Your task to perform on an android device: Add usb-c to usb-b to the cart on target Image 0: 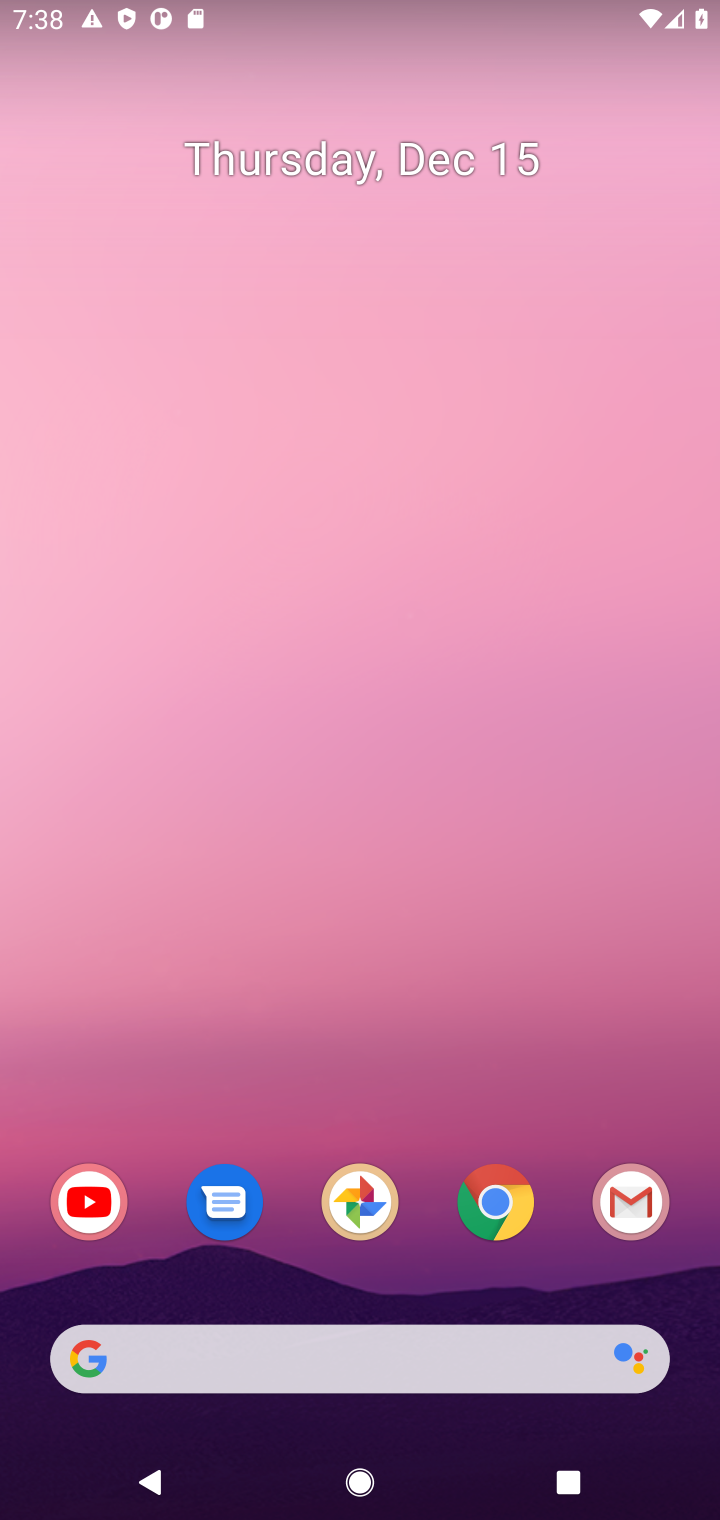
Step 0: click (506, 1211)
Your task to perform on an android device: Add usb-c to usb-b to the cart on target Image 1: 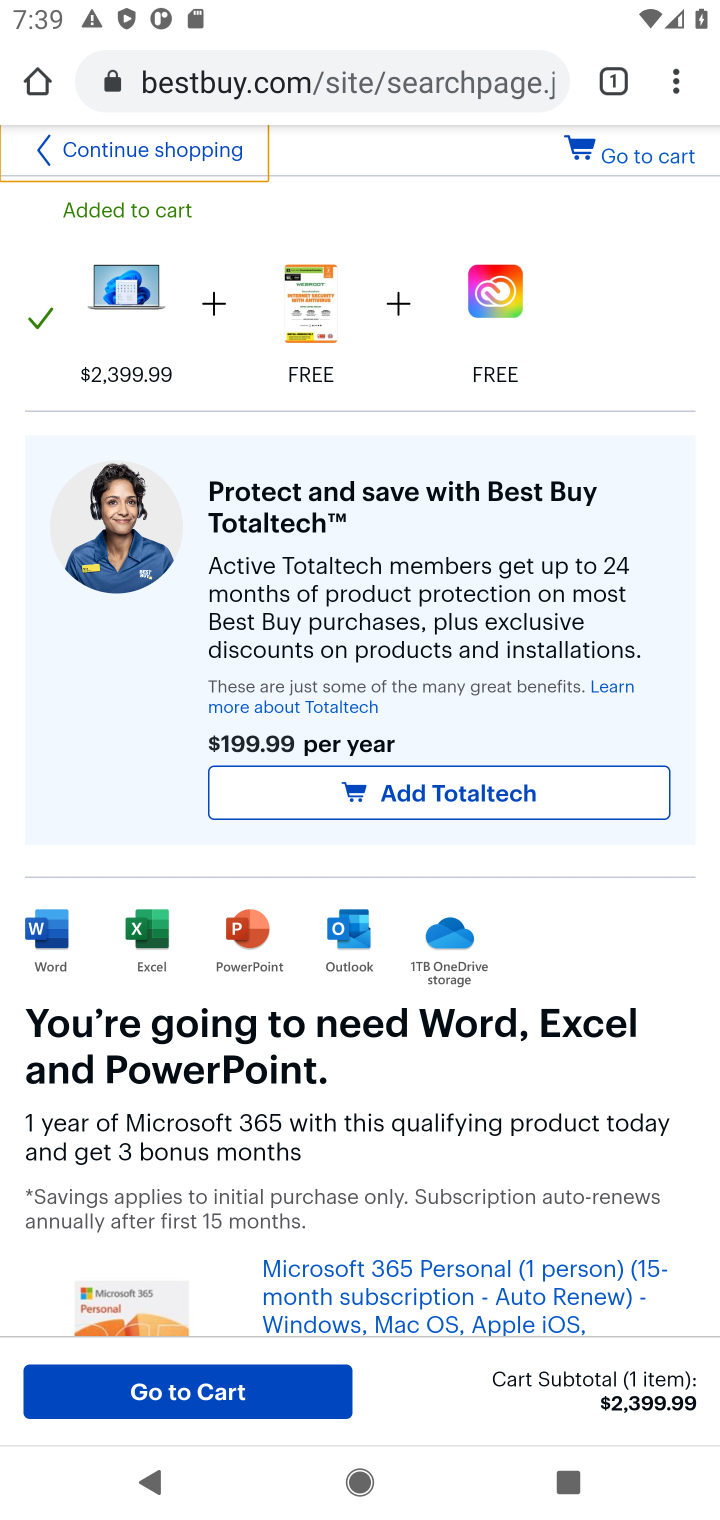
Step 1: click (253, 83)
Your task to perform on an android device: Add usb-c to usb-b to the cart on target Image 2: 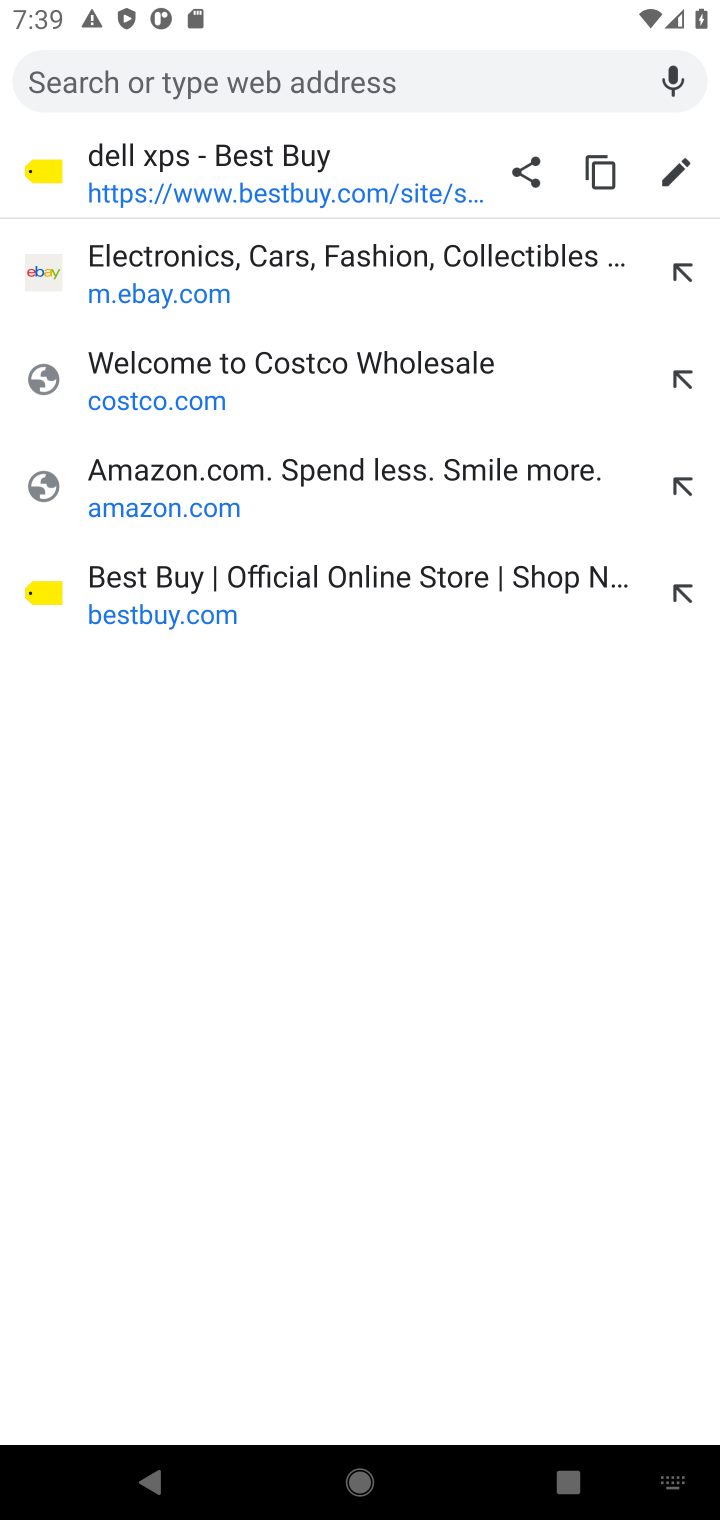
Step 2: type "target.com"
Your task to perform on an android device: Add usb-c to usb-b to the cart on target Image 3: 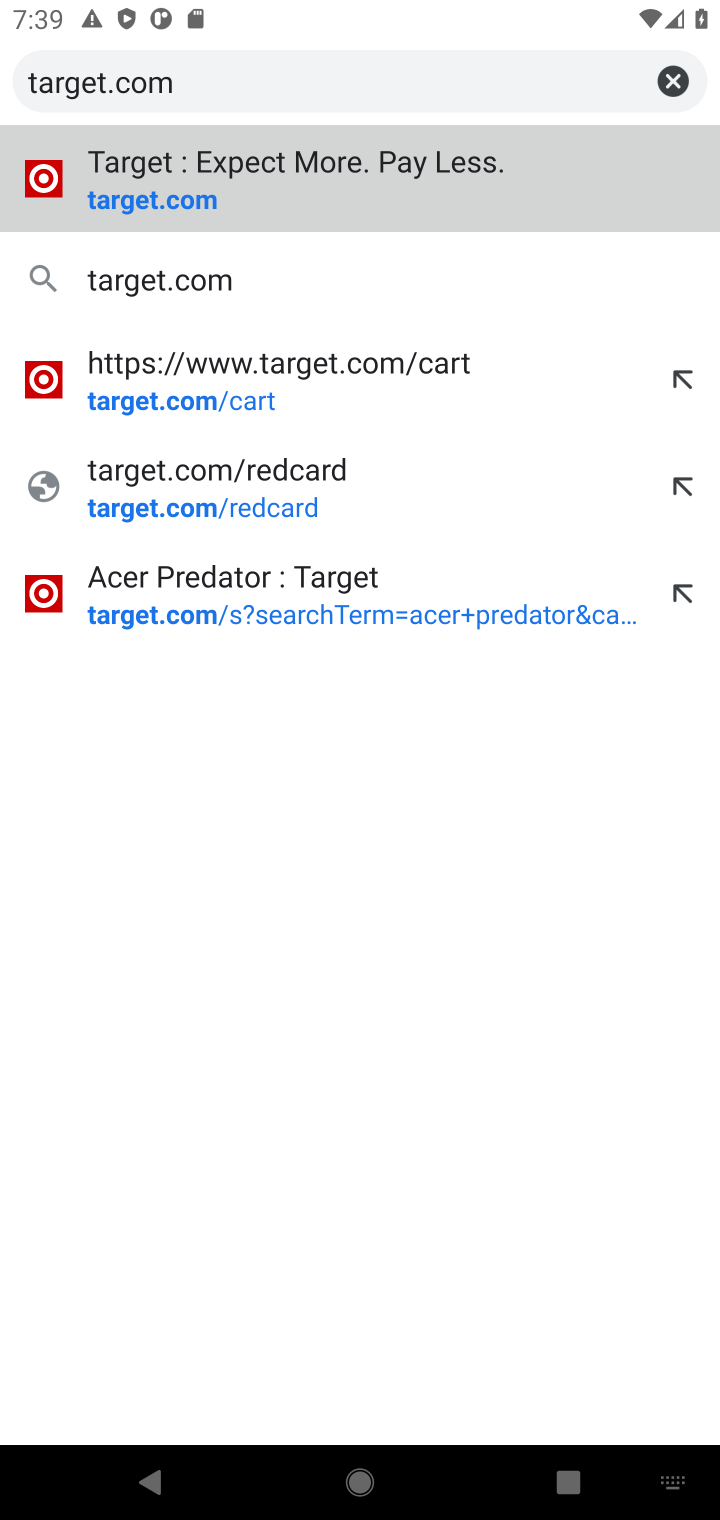
Step 3: click (168, 189)
Your task to perform on an android device: Add usb-c to usb-b to the cart on target Image 4: 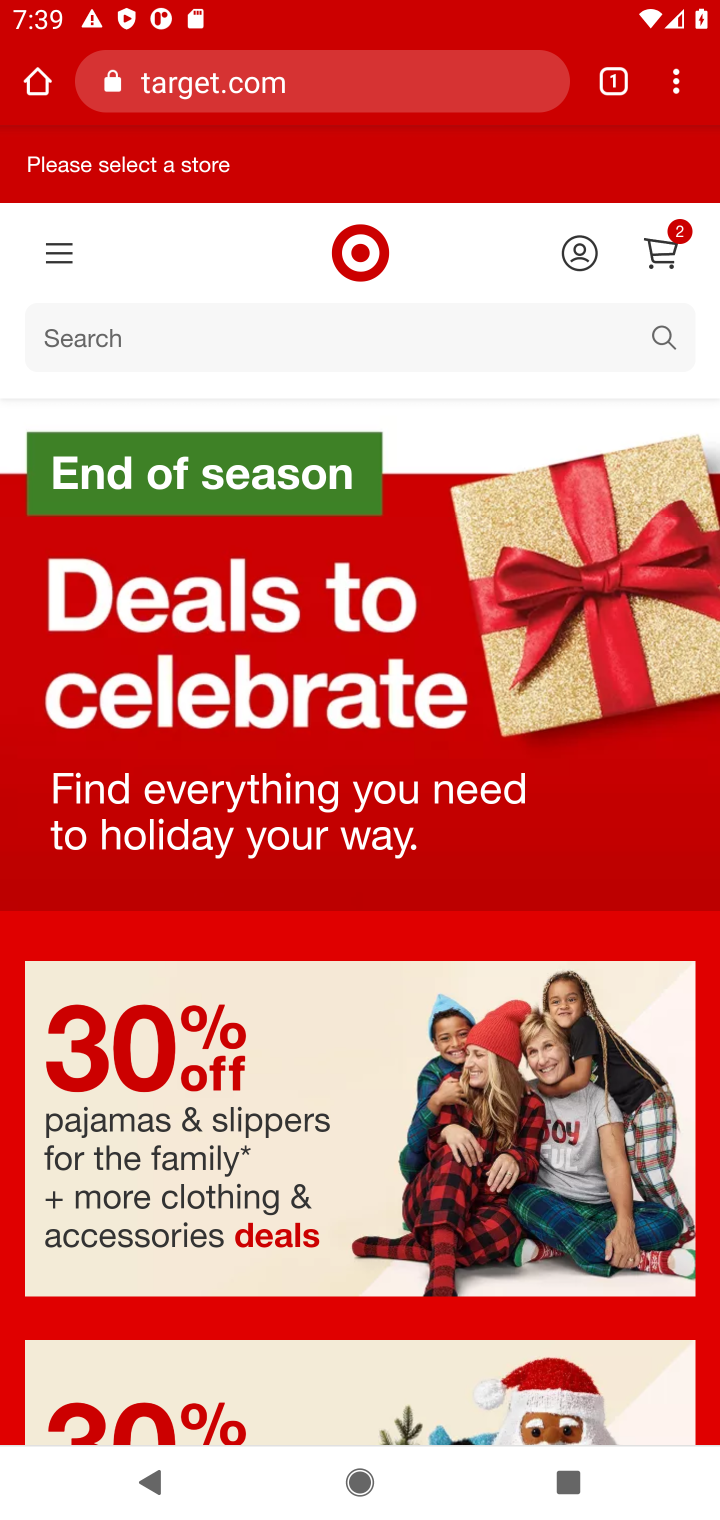
Step 4: click (48, 324)
Your task to perform on an android device: Add usb-c to usb-b to the cart on target Image 5: 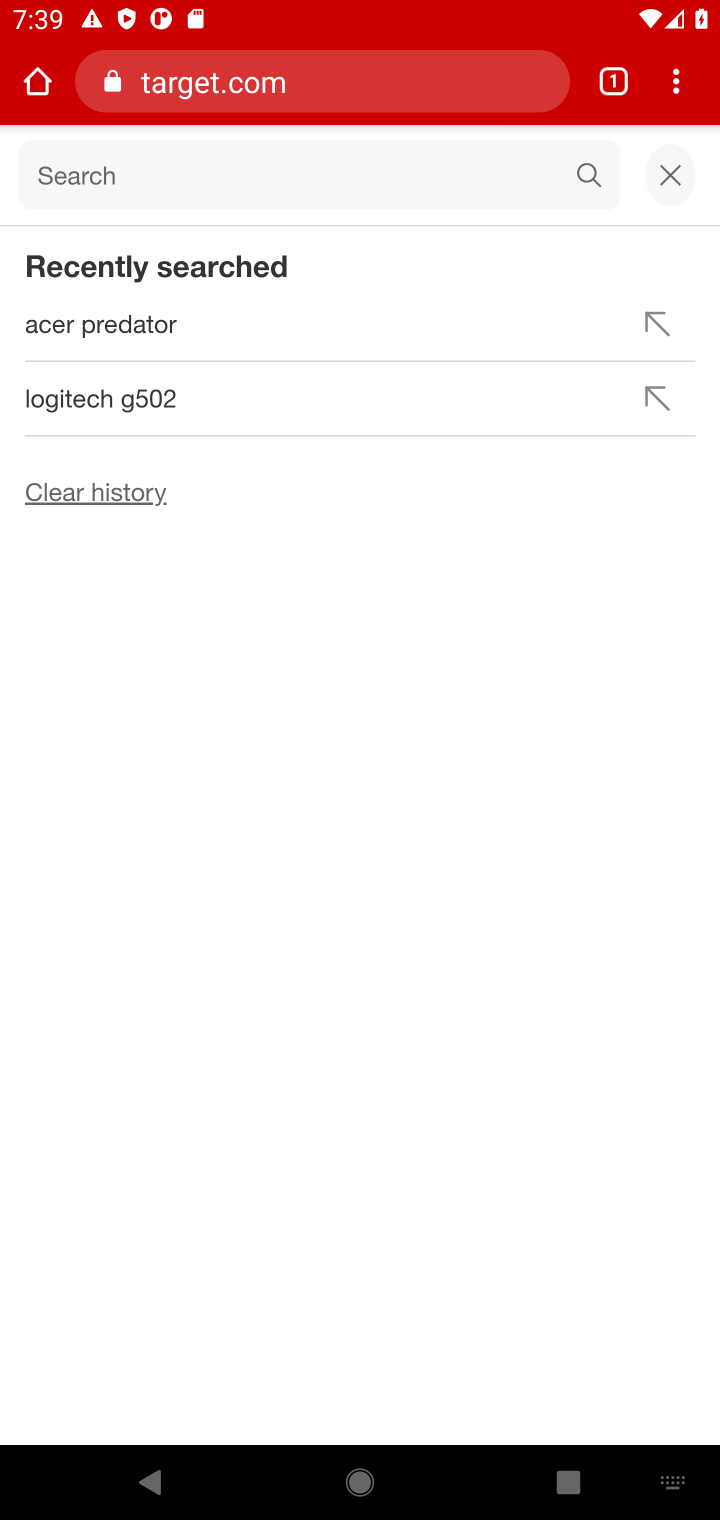
Step 5: type "usb-c to usb-b"
Your task to perform on an android device: Add usb-c to usb-b to the cart on target Image 6: 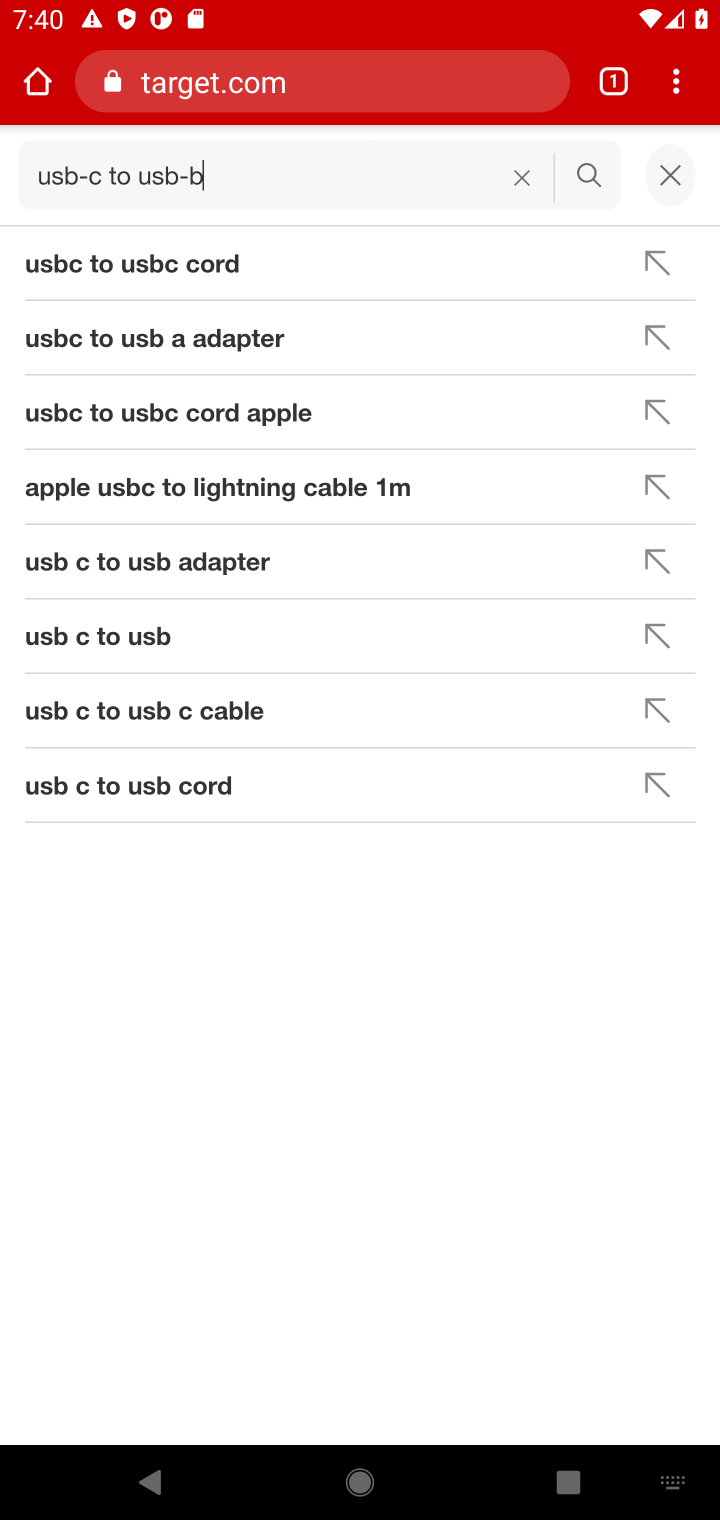
Step 6: click (598, 175)
Your task to perform on an android device: Add usb-c to usb-b to the cart on target Image 7: 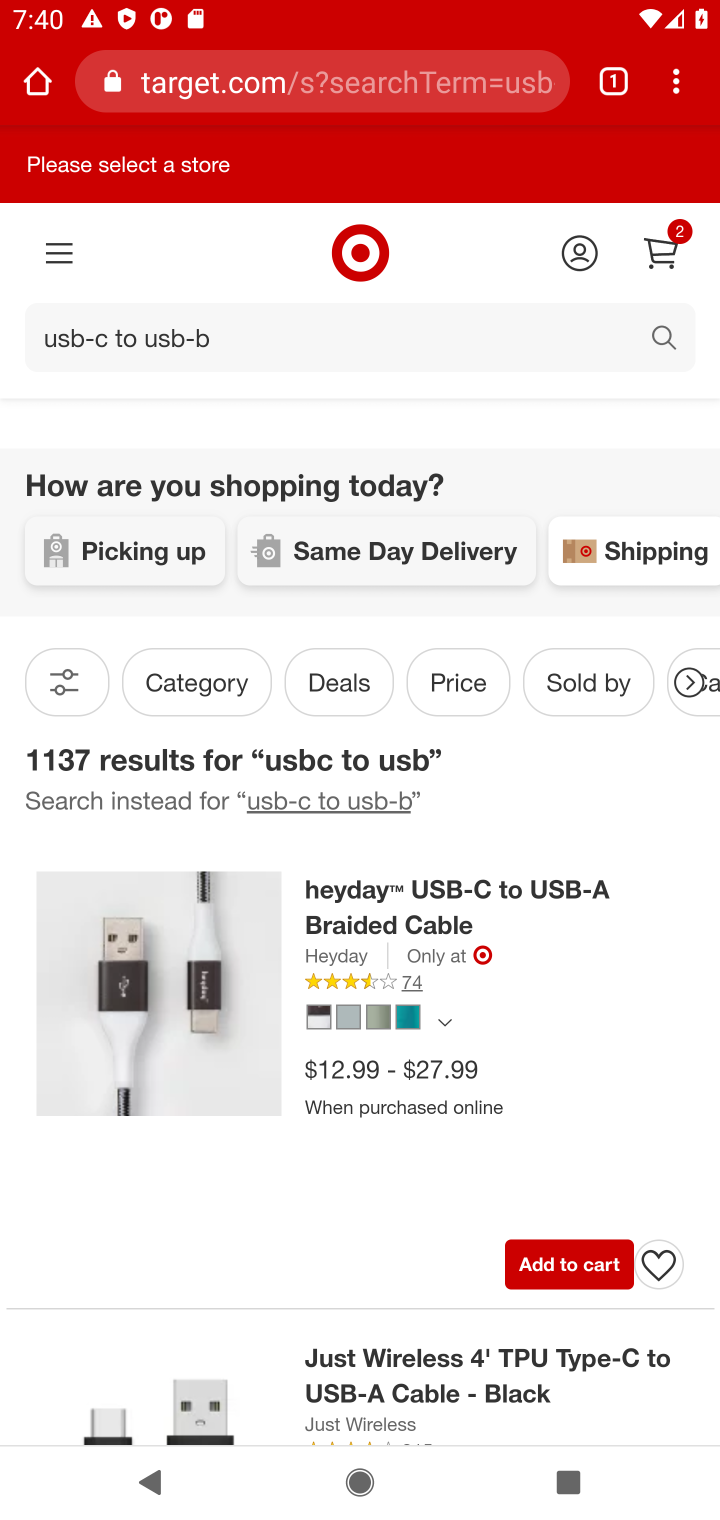
Step 7: drag from (213, 1162) to (164, 510)
Your task to perform on an android device: Add usb-c to usb-b to the cart on target Image 8: 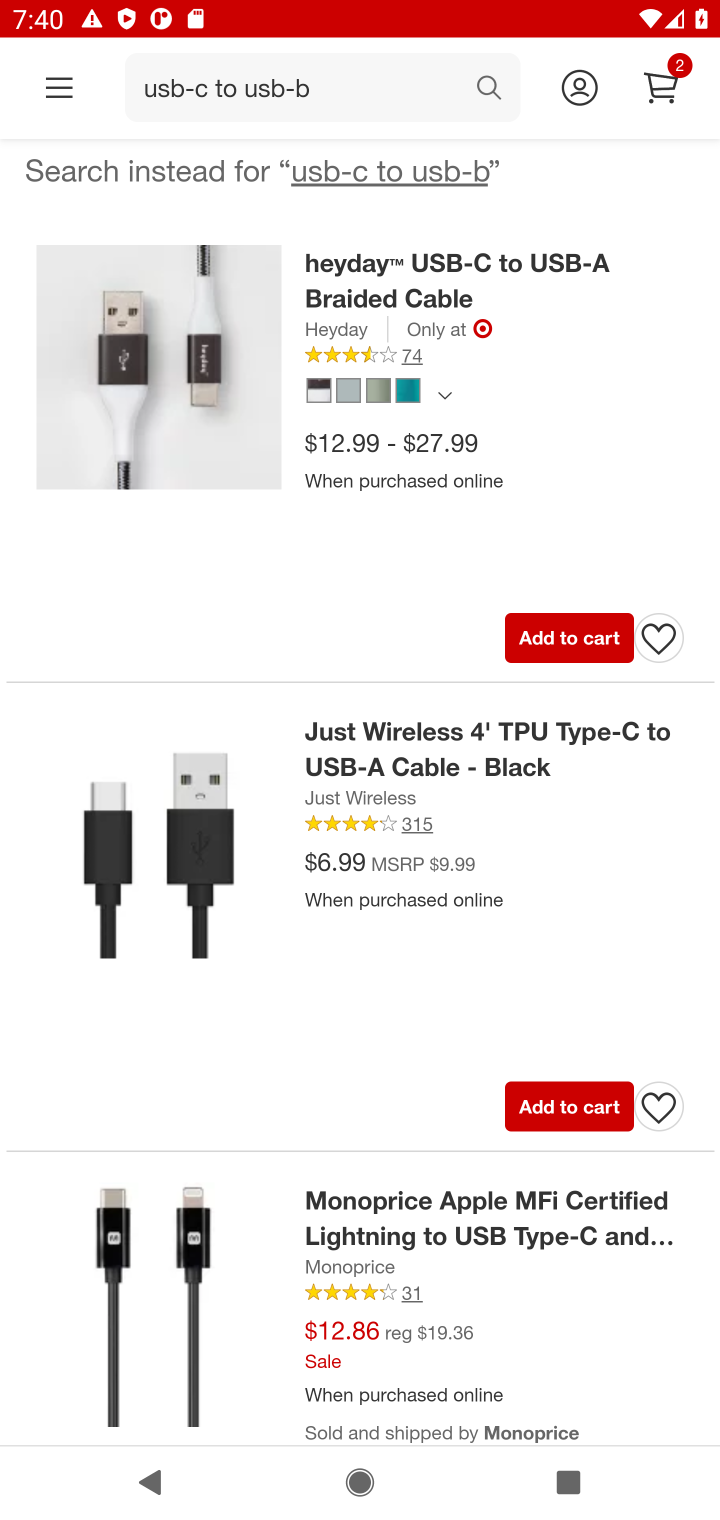
Step 8: drag from (214, 1069) to (184, 552)
Your task to perform on an android device: Add usb-c to usb-b to the cart on target Image 9: 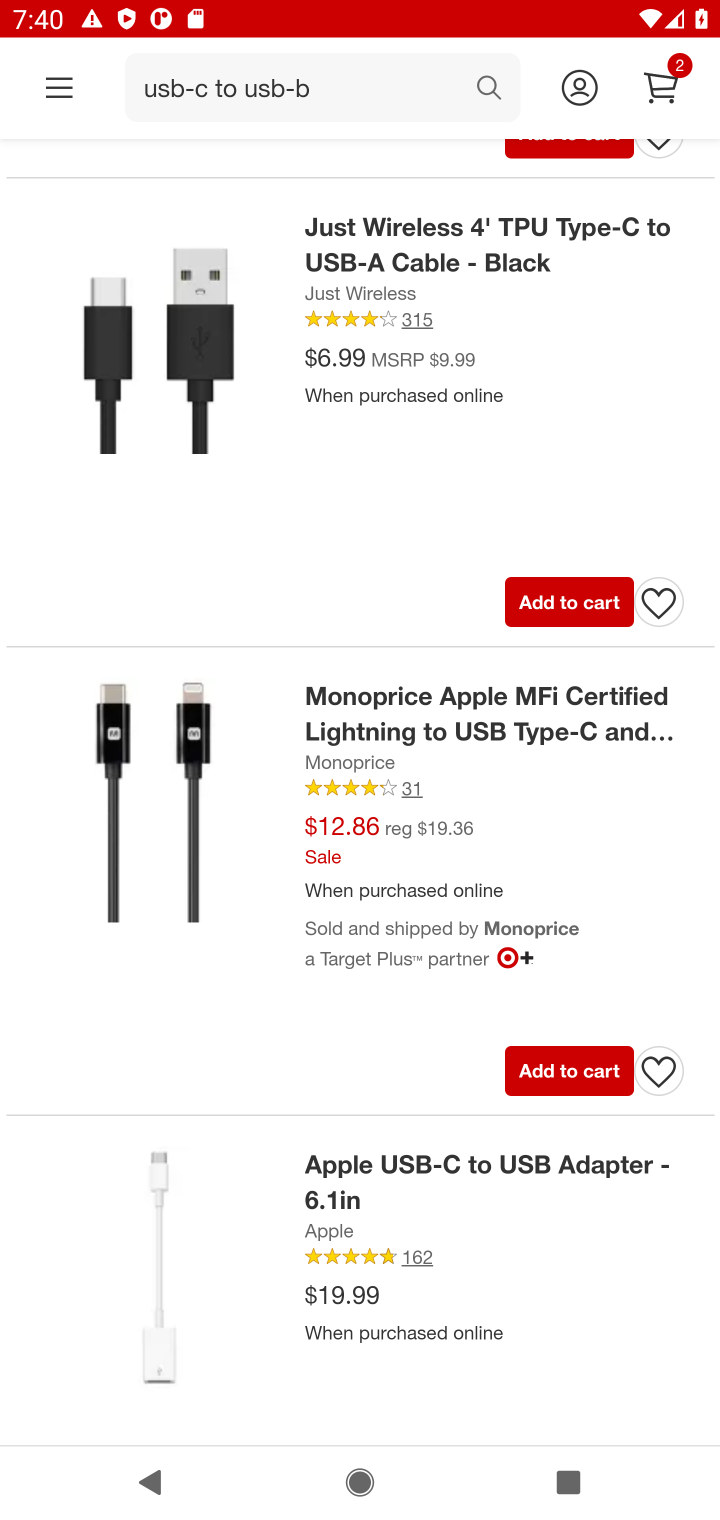
Step 9: drag from (208, 1293) to (214, 667)
Your task to perform on an android device: Add usb-c to usb-b to the cart on target Image 10: 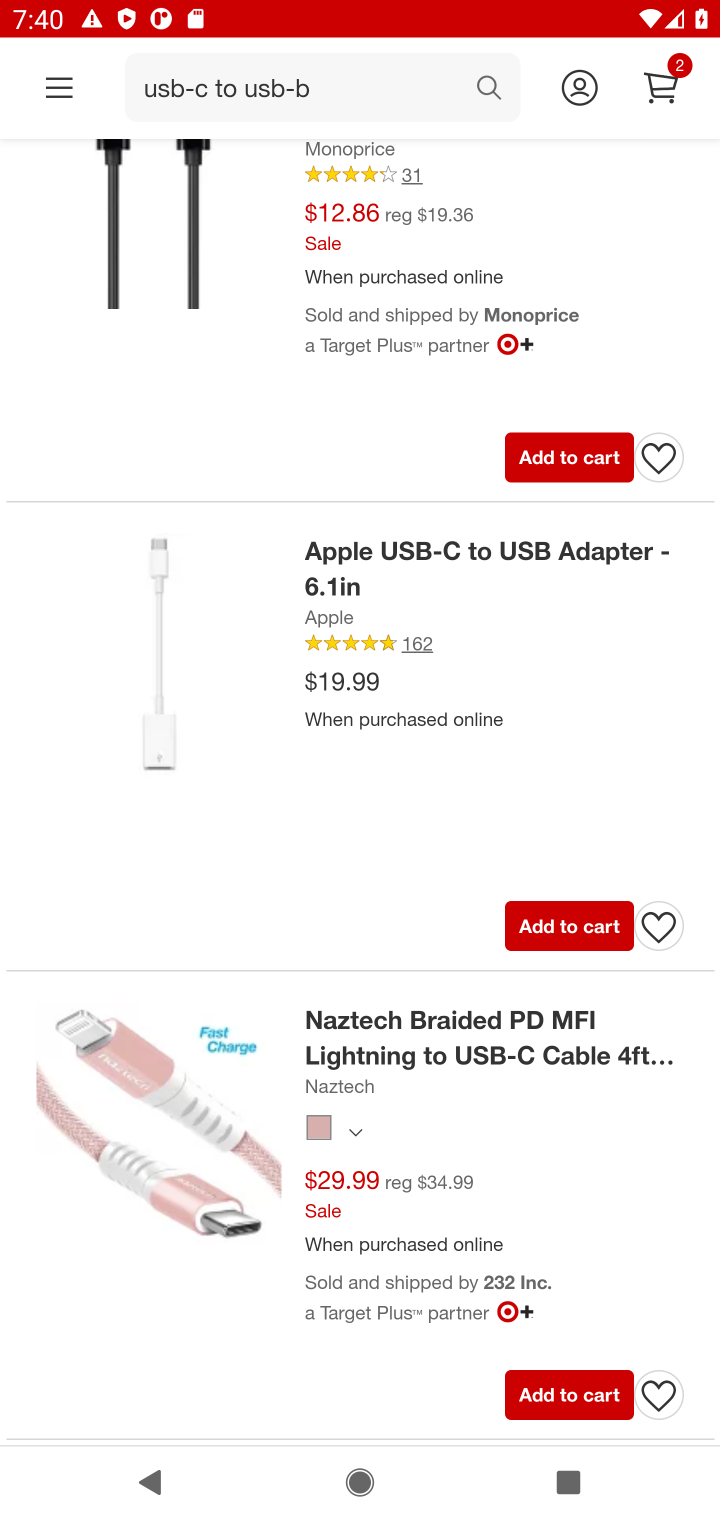
Step 10: drag from (242, 1183) to (196, 724)
Your task to perform on an android device: Add usb-c to usb-b to the cart on target Image 11: 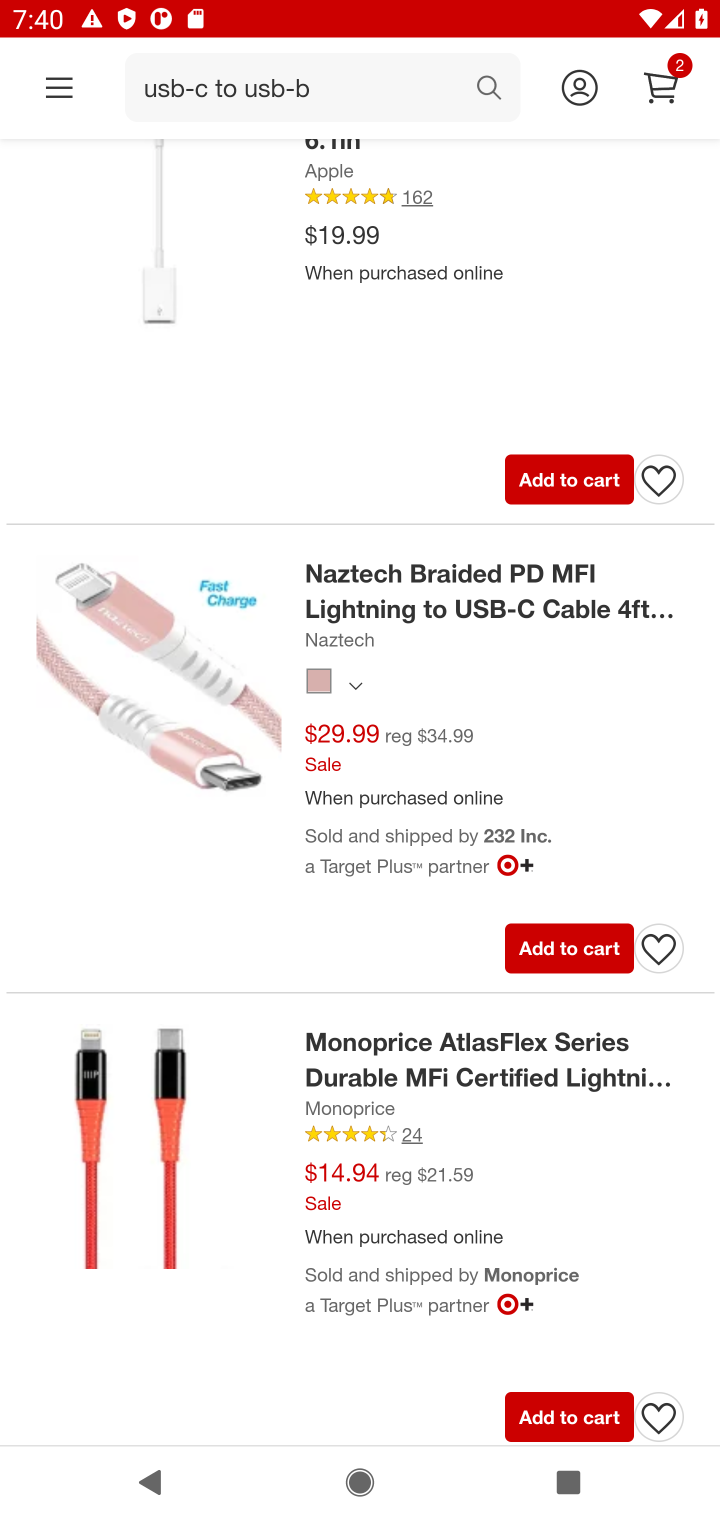
Step 11: click (352, 624)
Your task to perform on an android device: Add usb-c to usb-b to the cart on target Image 12: 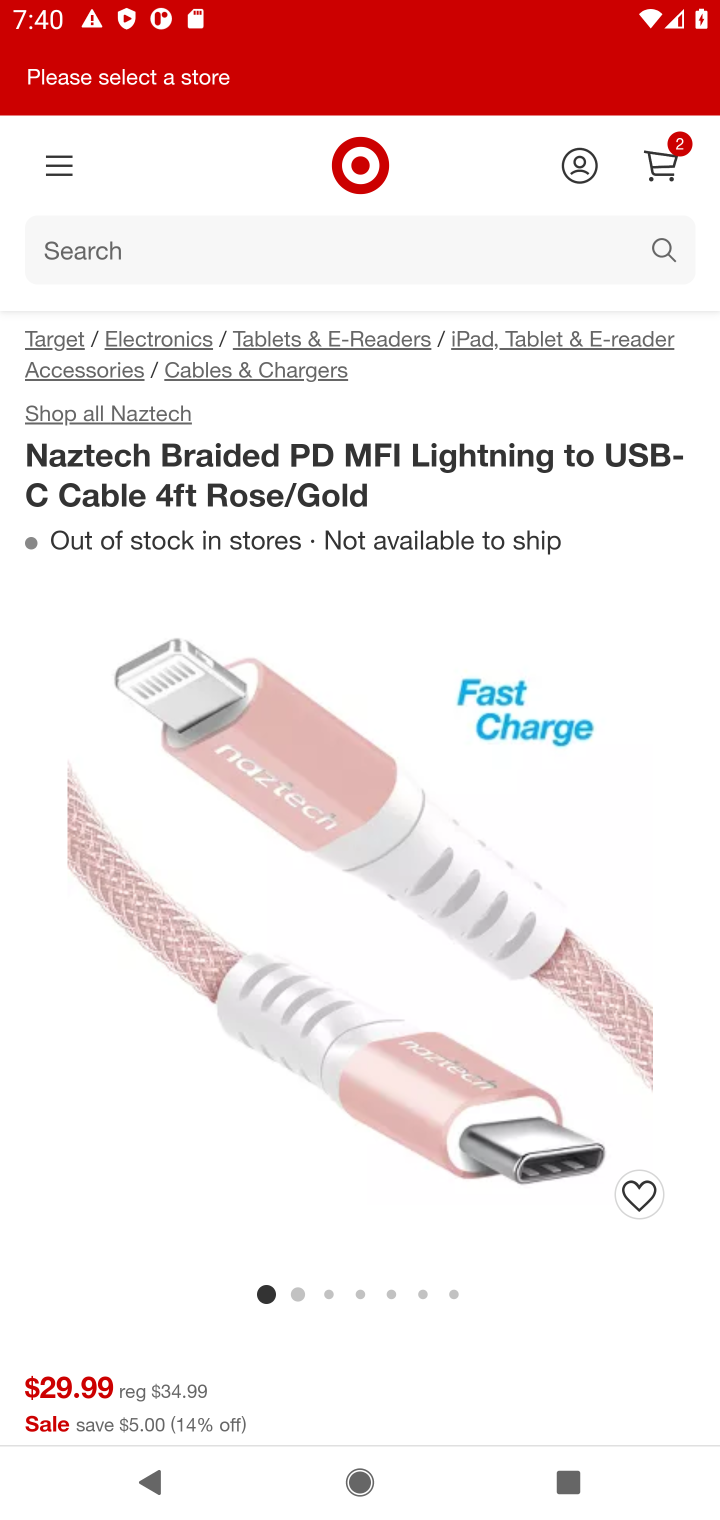
Step 12: task complete